Your task to perform on an android device: see creations saved in the google photos Image 0: 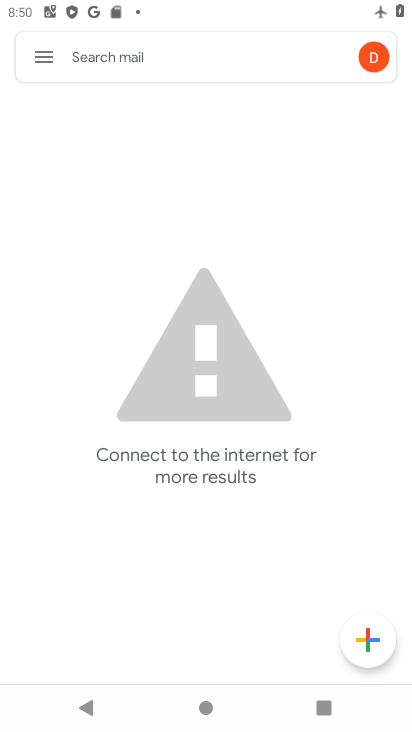
Step 0: press home button
Your task to perform on an android device: see creations saved in the google photos Image 1: 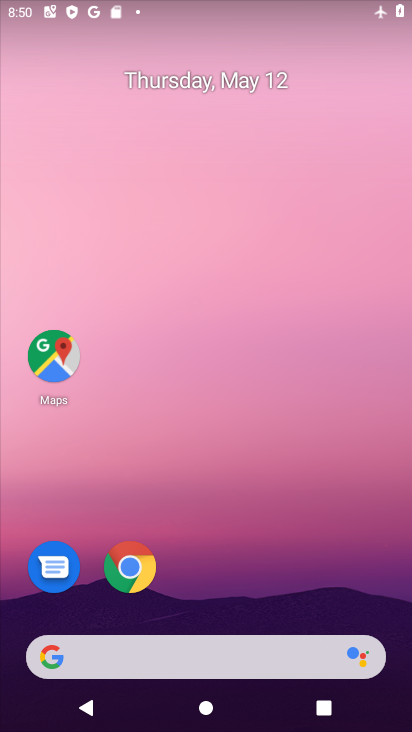
Step 1: drag from (198, 598) to (224, 26)
Your task to perform on an android device: see creations saved in the google photos Image 2: 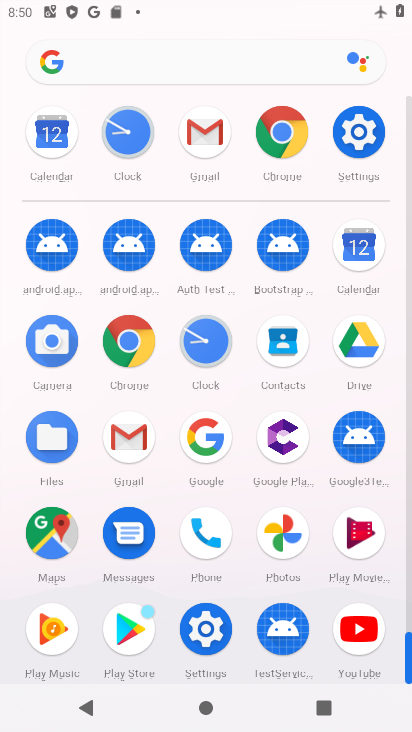
Step 2: click (292, 541)
Your task to perform on an android device: see creations saved in the google photos Image 3: 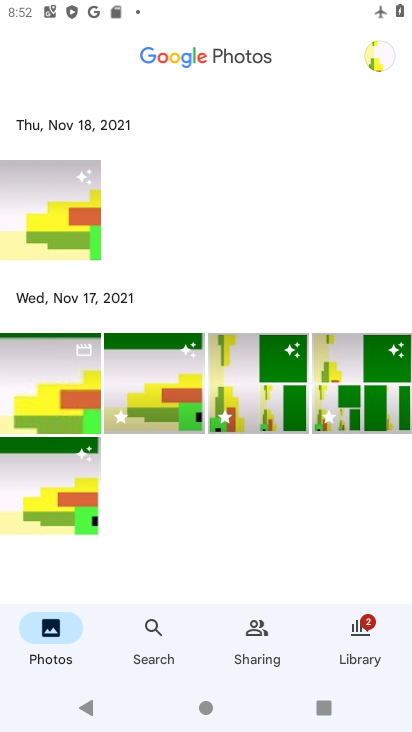
Step 3: task complete